Your task to perform on an android device: Search for "macbook air" on newegg.com, select the first entry, add it to the cart, then select checkout. Image 0: 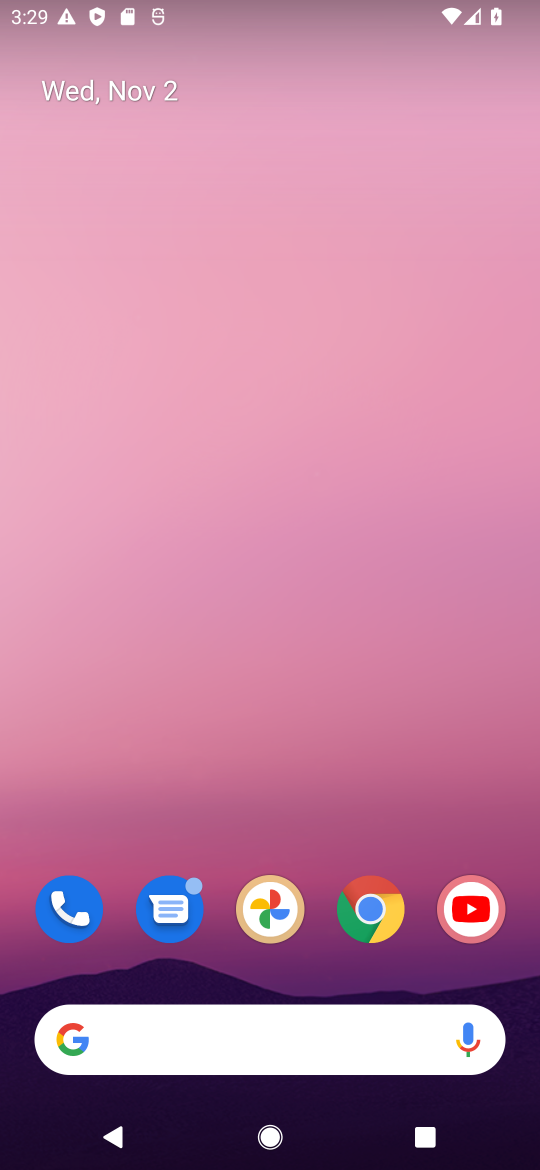
Step 0: click (368, 910)
Your task to perform on an android device: Search for "macbook air" on newegg.com, select the first entry, add it to the cart, then select checkout. Image 1: 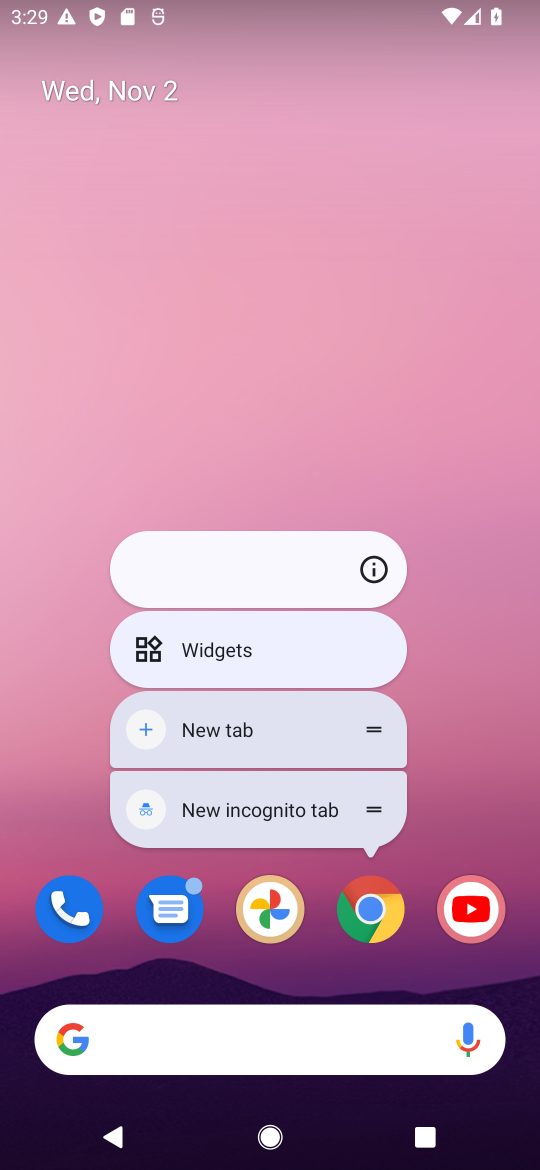
Step 1: click (369, 911)
Your task to perform on an android device: Search for "macbook air" on newegg.com, select the first entry, add it to the cart, then select checkout. Image 2: 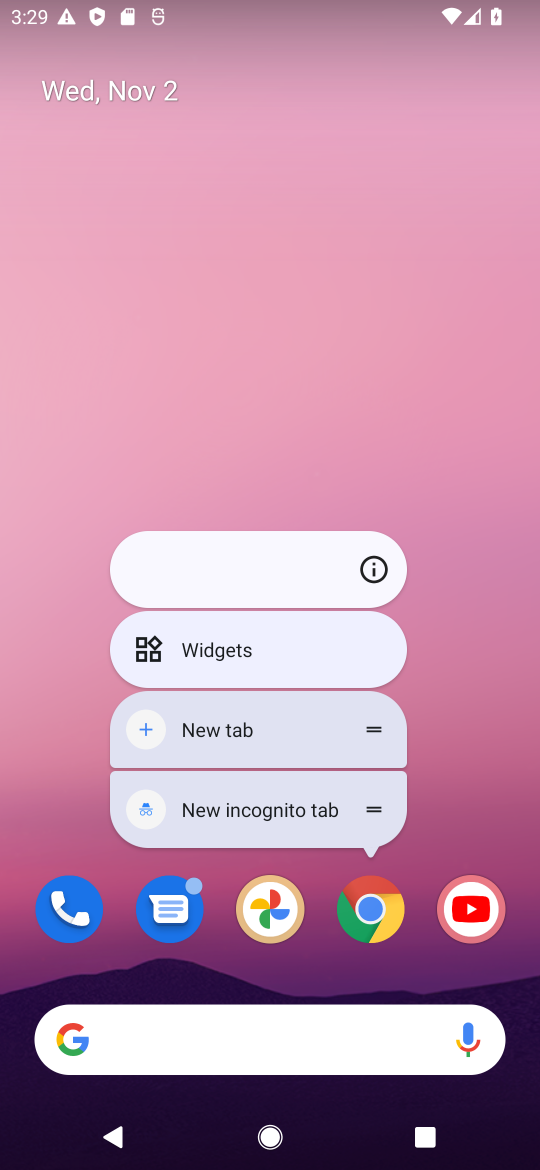
Step 2: click (376, 903)
Your task to perform on an android device: Search for "macbook air" on newegg.com, select the first entry, add it to the cart, then select checkout. Image 3: 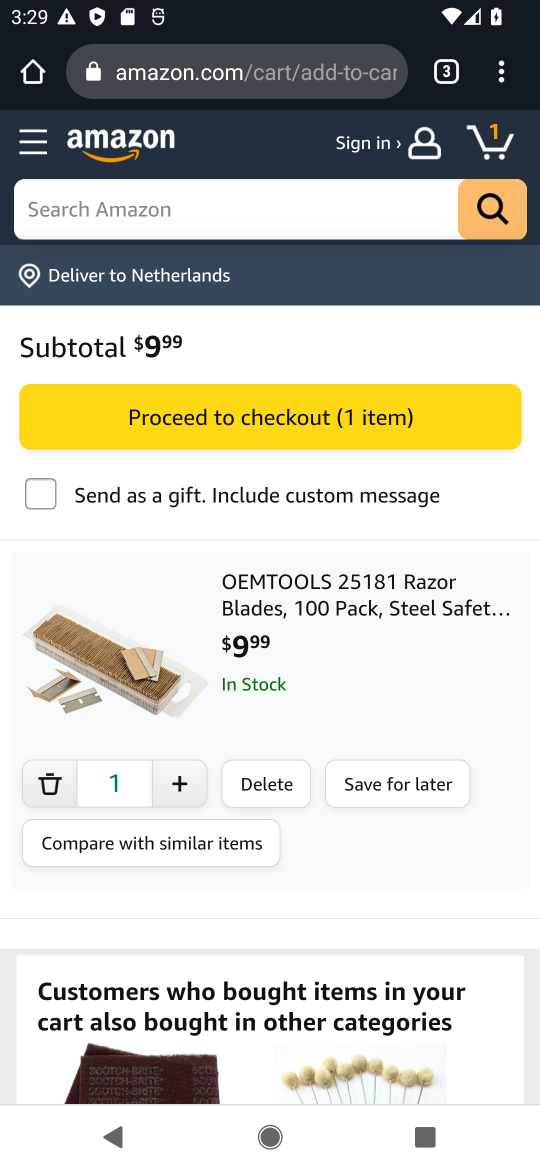
Step 3: click (267, 66)
Your task to perform on an android device: Search for "macbook air" on newegg.com, select the first entry, add it to the cart, then select checkout. Image 4: 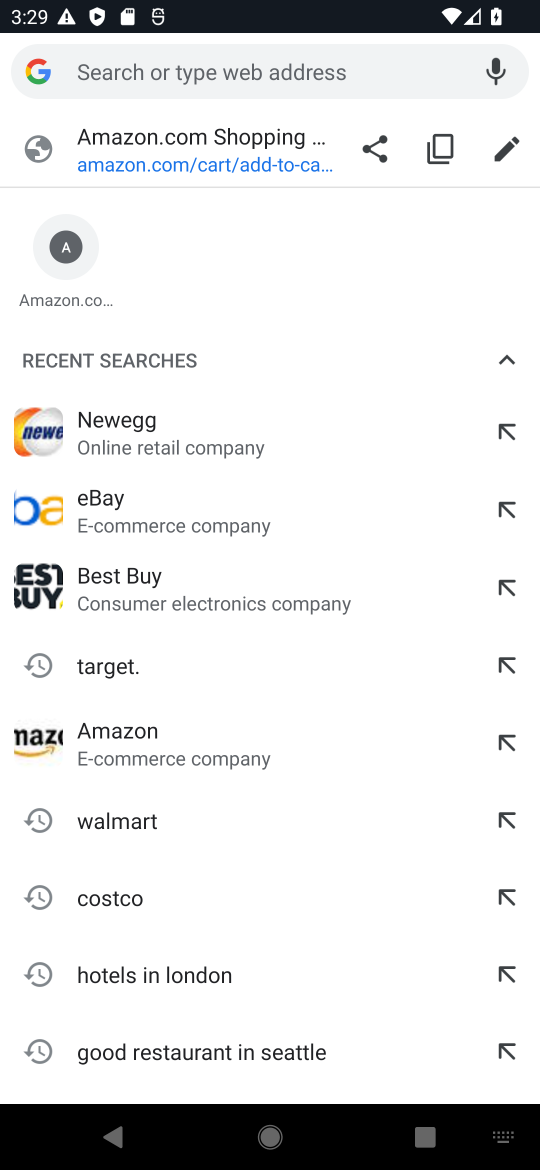
Step 4: click (80, 438)
Your task to perform on an android device: Search for "macbook air" on newegg.com, select the first entry, add it to the cart, then select checkout. Image 5: 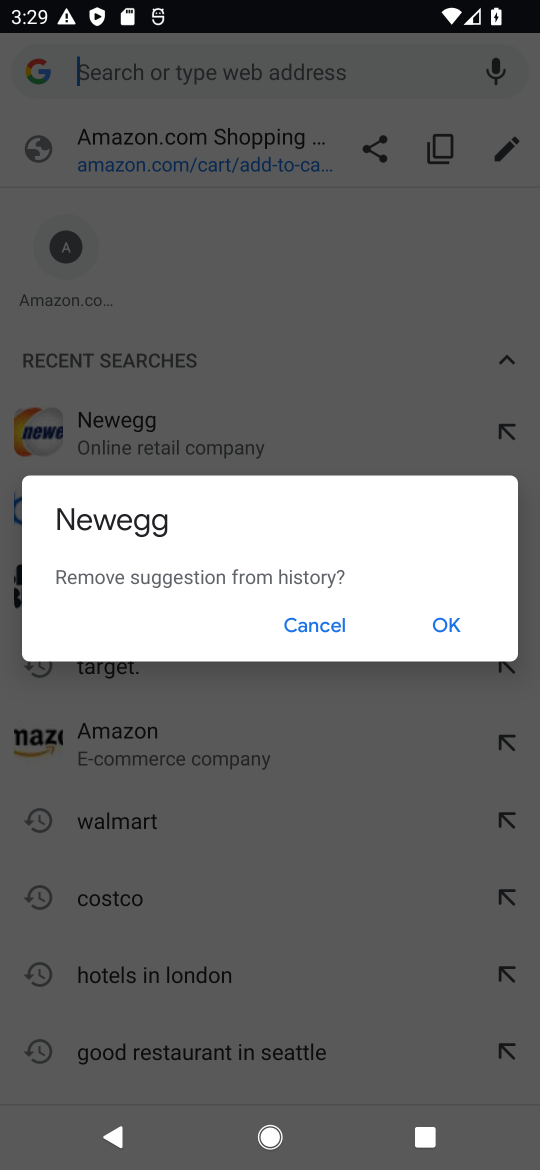
Step 5: click (91, 431)
Your task to perform on an android device: Search for "macbook air" on newegg.com, select the first entry, add it to the cart, then select checkout. Image 6: 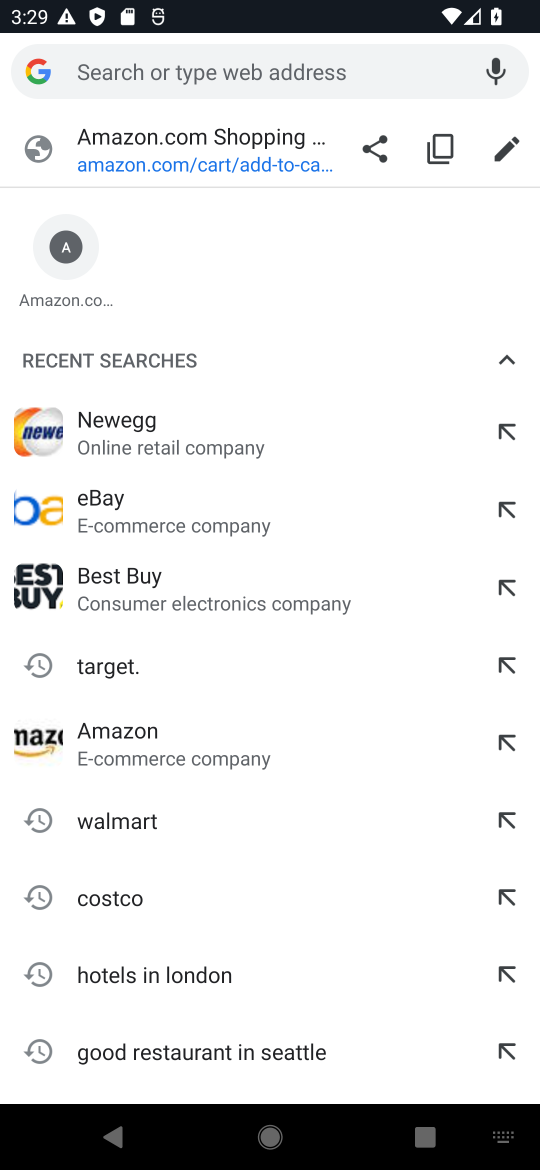
Step 6: click (134, 422)
Your task to perform on an android device: Search for "macbook air" on newegg.com, select the first entry, add it to the cart, then select checkout. Image 7: 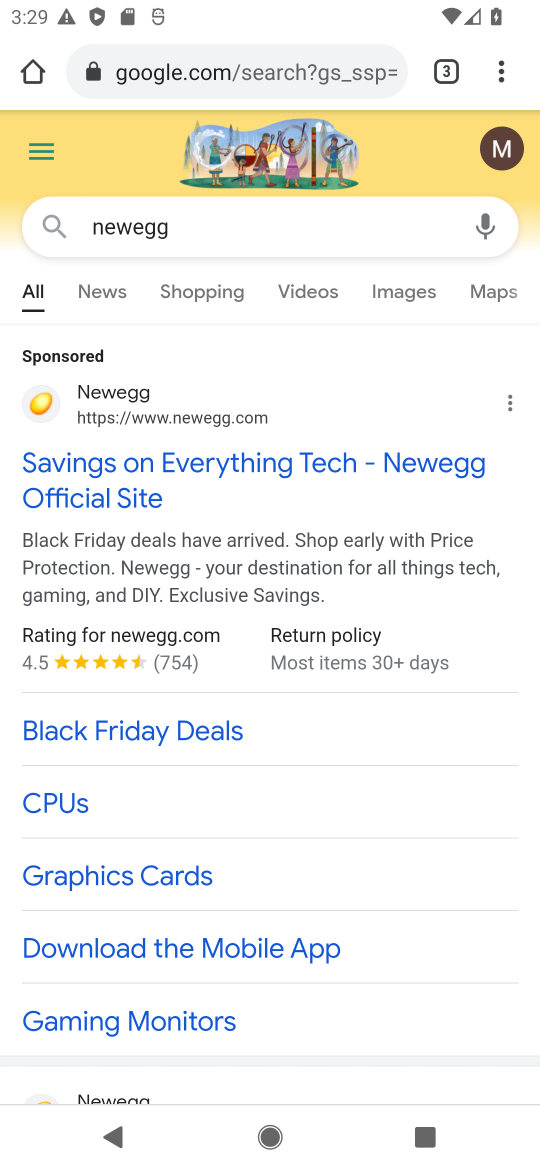
Step 7: click (84, 463)
Your task to perform on an android device: Search for "macbook air" on newegg.com, select the first entry, add it to the cart, then select checkout. Image 8: 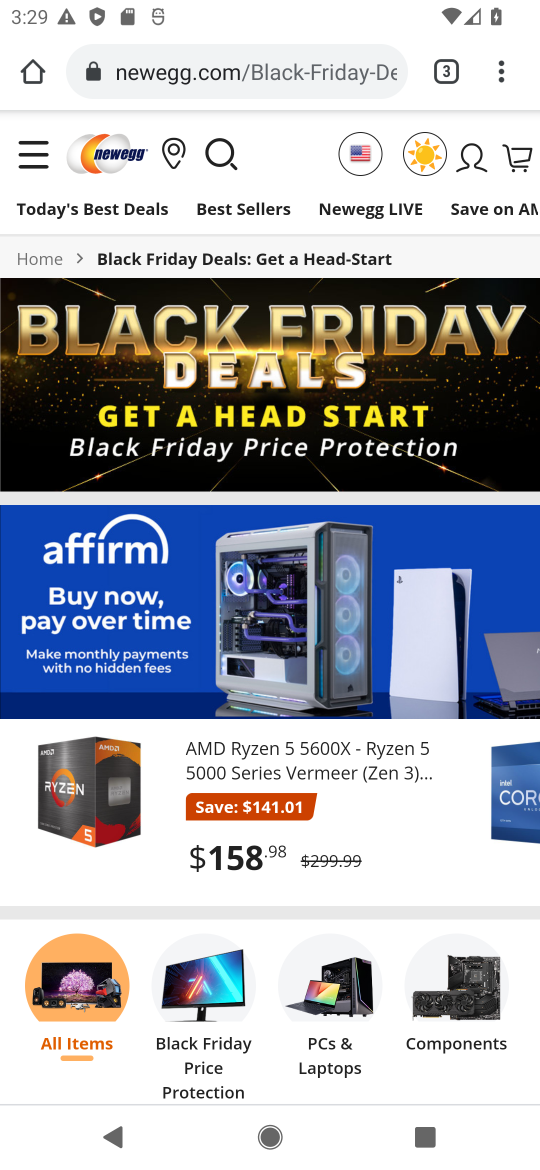
Step 8: click (224, 152)
Your task to perform on an android device: Search for "macbook air" on newegg.com, select the first entry, add it to the cart, then select checkout. Image 9: 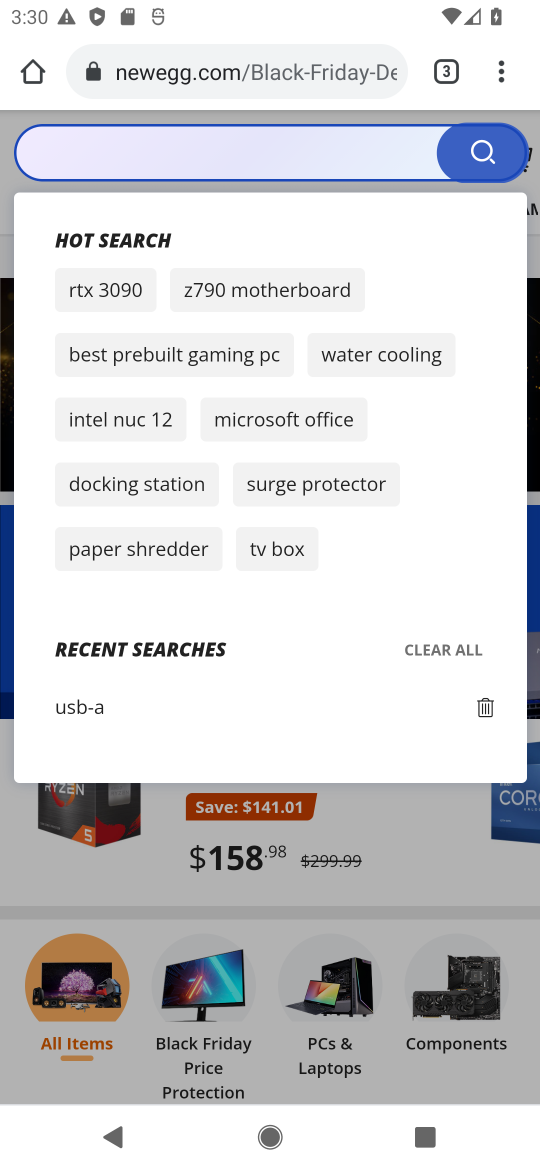
Step 9: click (105, 164)
Your task to perform on an android device: Search for "macbook air" on newegg.com, select the first entry, add it to the cart, then select checkout. Image 10: 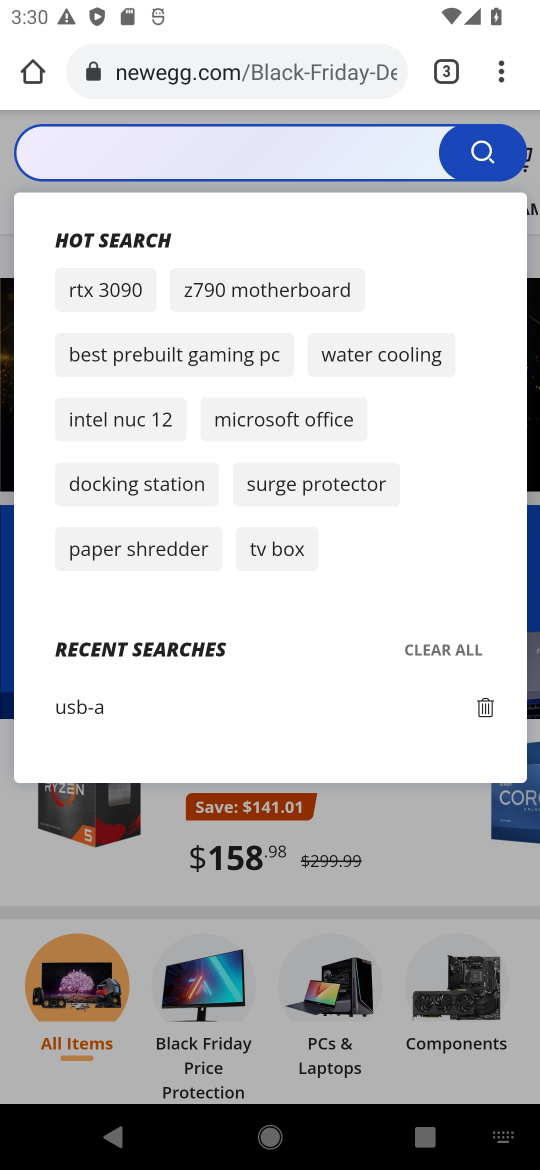
Step 10: type "macbook air"
Your task to perform on an android device: Search for "macbook air" on newegg.com, select the first entry, add it to the cart, then select checkout. Image 11: 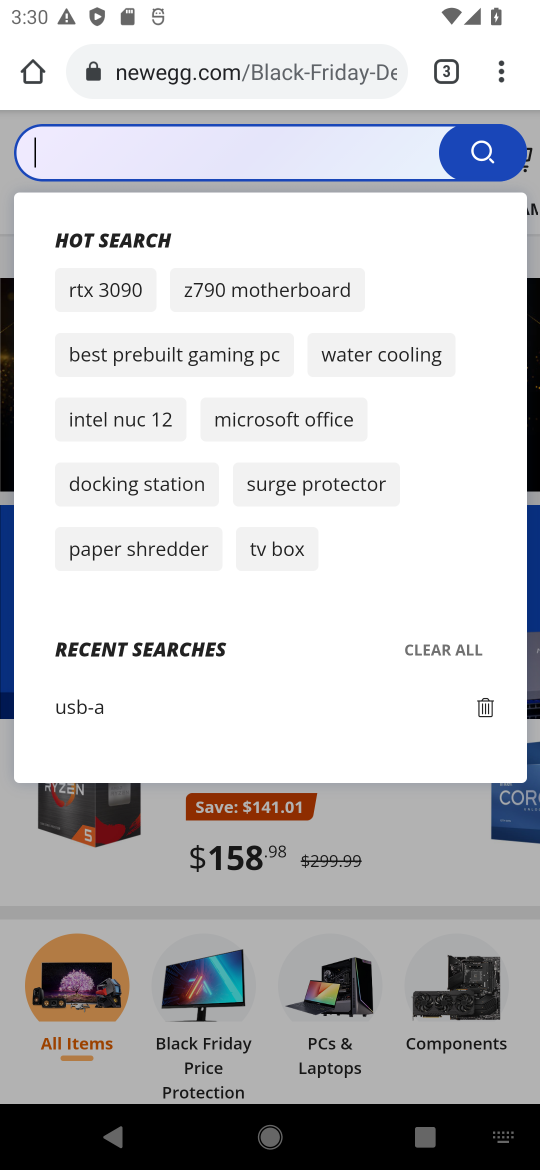
Step 11: press enter
Your task to perform on an android device: Search for "macbook air" on newegg.com, select the first entry, add it to the cart, then select checkout. Image 12: 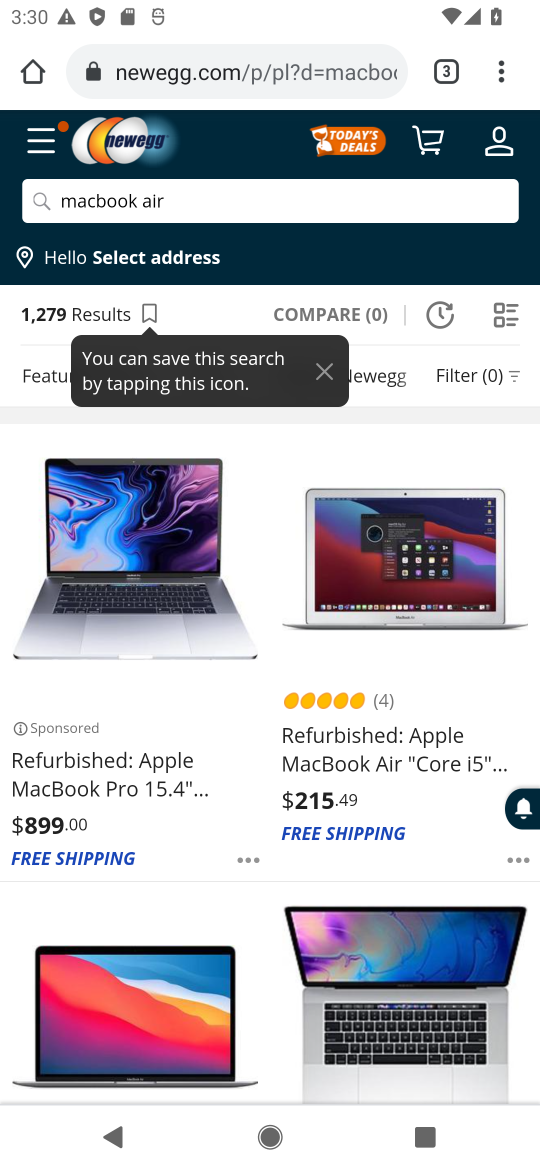
Step 12: click (144, 713)
Your task to perform on an android device: Search for "macbook air" on newegg.com, select the first entry, add it to the cart, then select checkout. Image 13: 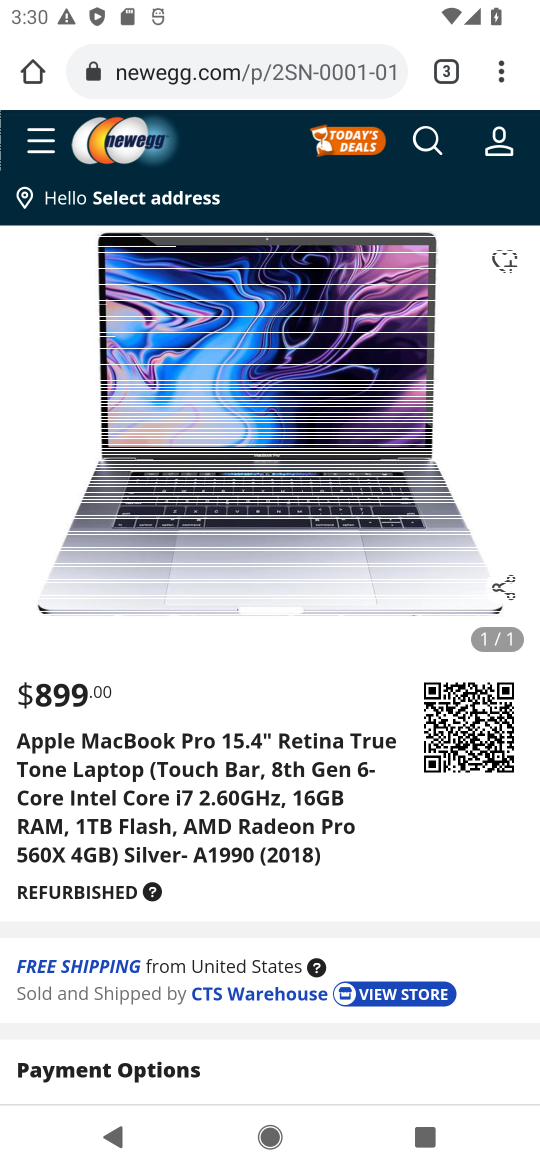
Step 13: click (267, 1073)
Your task to perform on an android device: Search for "macbook air" on newegg.com, select the first entry, add it to the cart, then select checkout. Image 14: 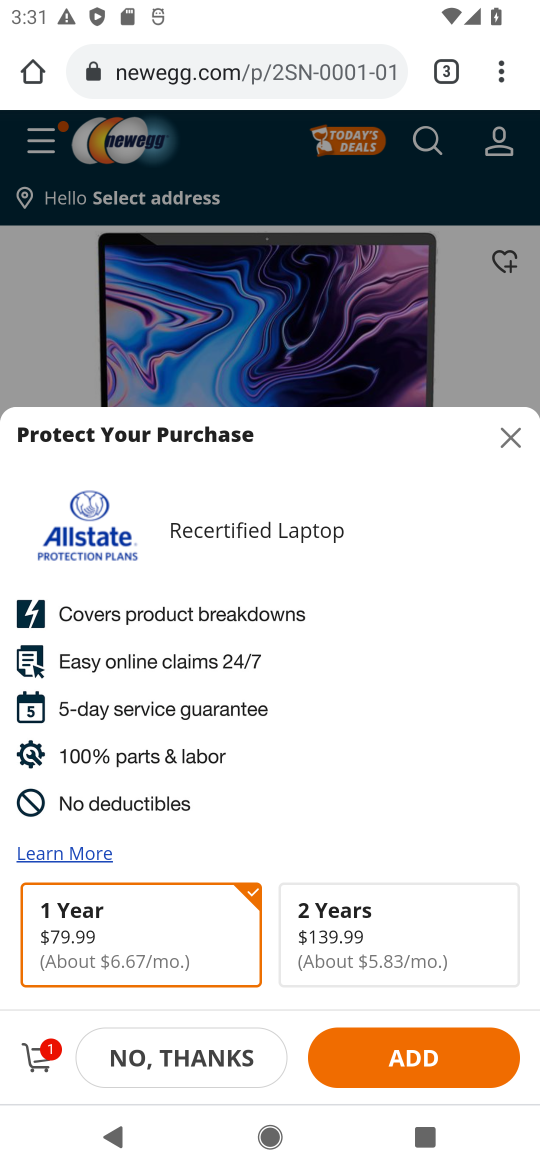
Step 14: click (210, 1060)
Your task to perform on an android device: Search for "macbook air" on newegg.com, select the first entry, add it to the cart, then select checkout. Image 15: 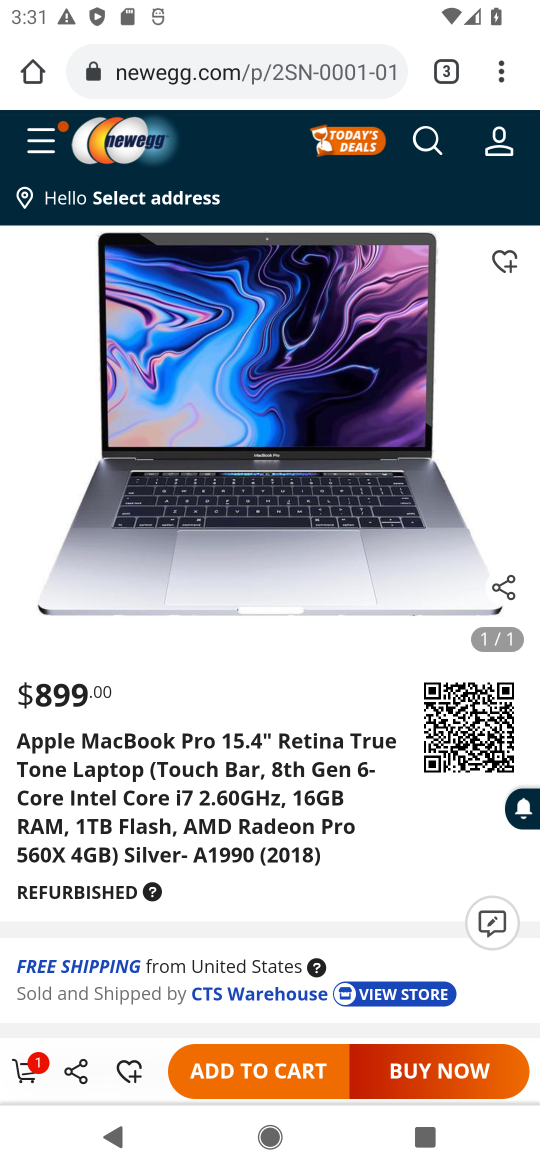
Step 15: click (41, 1064)
Your task to perform on an android device: Search for "macbook air" on newegg.com, select the first entry, add it to the cart, then select checkout. Image 16: 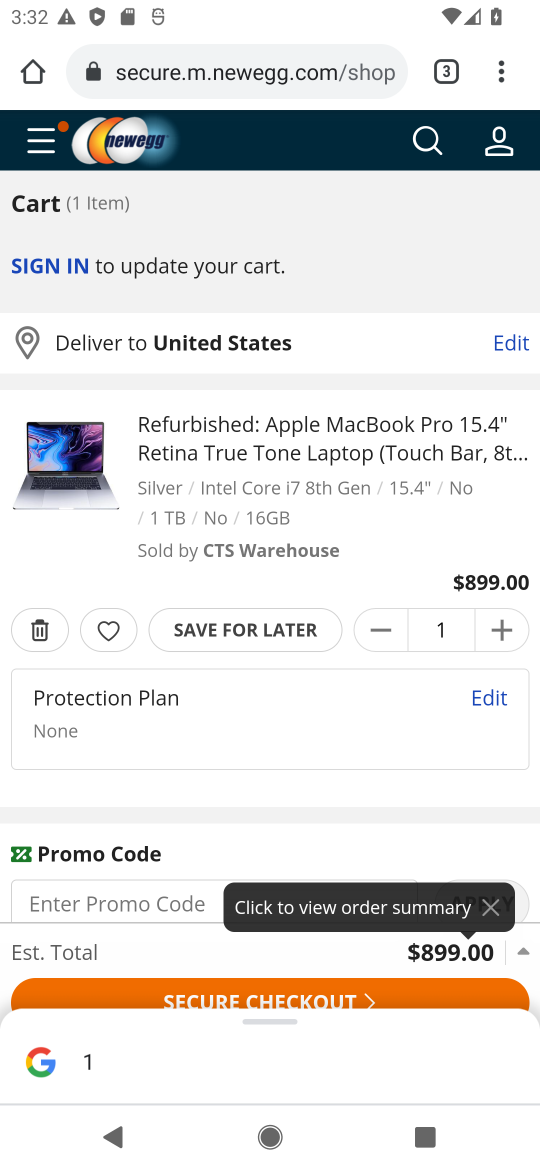
Step 16: drag from (244, 895) to (411, 485)
Your task to perform on an android device: Search for "macbook air" on newegg.com, select the first entry, add it to the cart, then select checkout. Image 17: 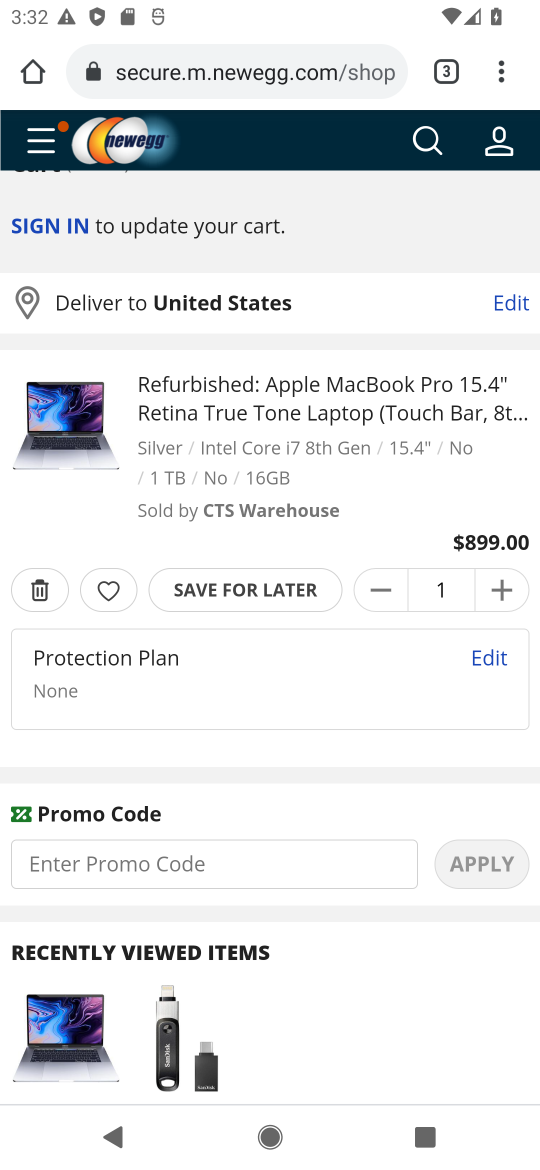
Step 17: click (253, 1006)
Your task to perform on an android device: Search for "macbook air" on newegg.com, select the first entry, add it to the cart, then select checkout. Image 18: 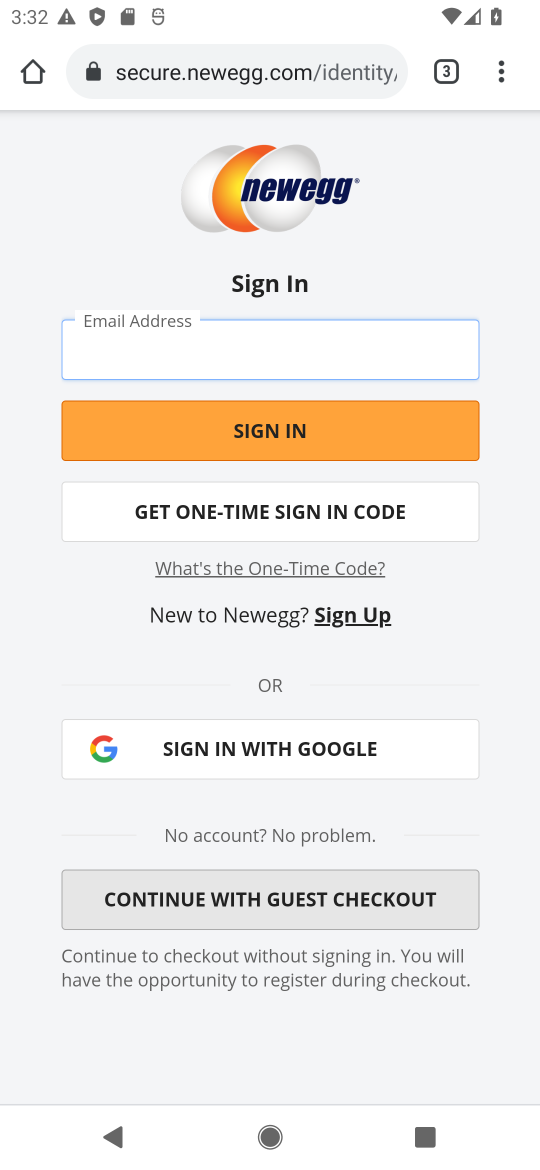
Step 18: task complete